Your task to perform on an android device: Open Chrome and go to settings Image 0: 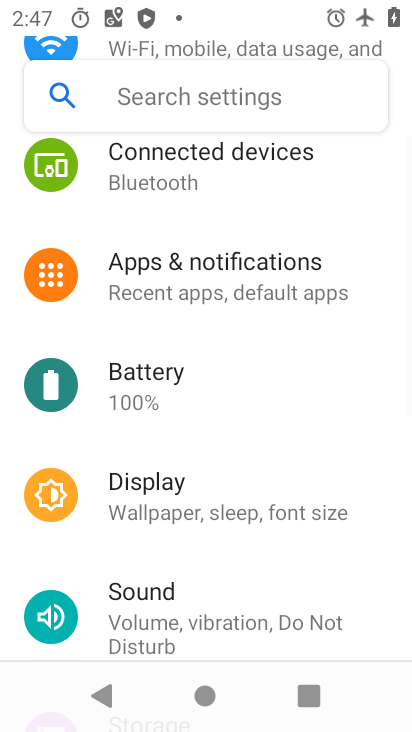
Step 0: press home button
Your task to perform on an android device: Open Chrome and go to settings Image 1: 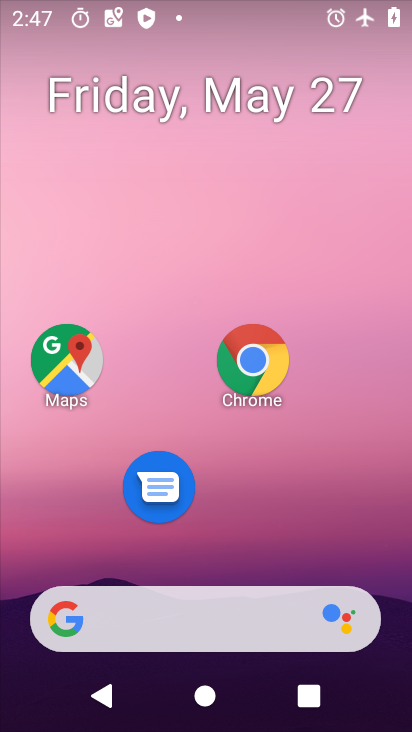
Step 1: click (254, 363)
Your task to perform on an android device: Open Chrome and go to settings Image 2: 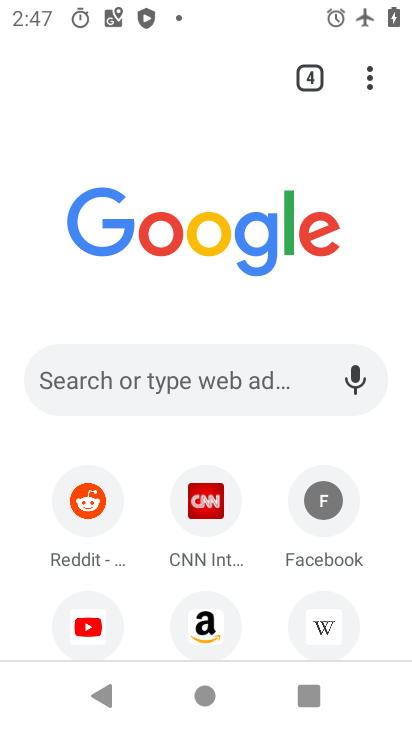
Step 2: click (360, 75)
Your task to perform on an android device: Open Chrome and go to settings Image 3: 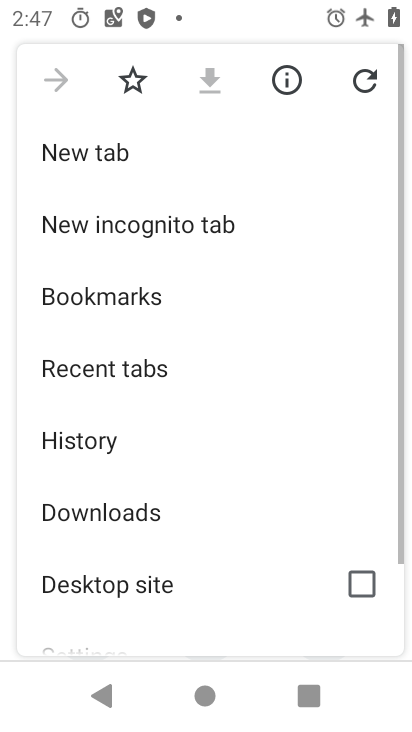
Step 3: drag from (226, 533) to (211, 205)
Your task to perform on an android device: Open Chrome and go to settings Image 4: 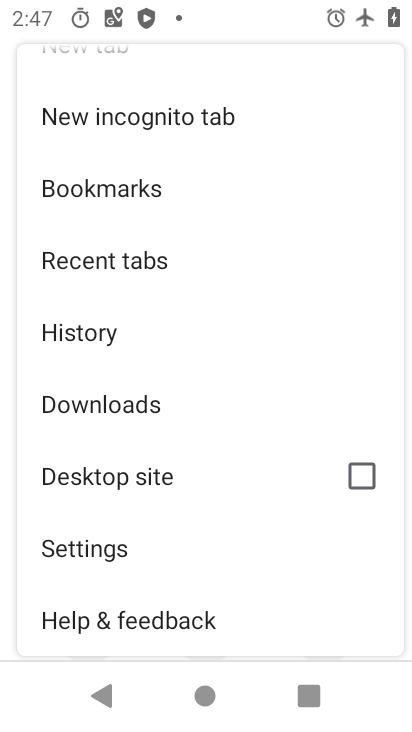
Step 4: click (118, 547)
Your task to perform on an android device: Open Chrome and go to settings Image 5: 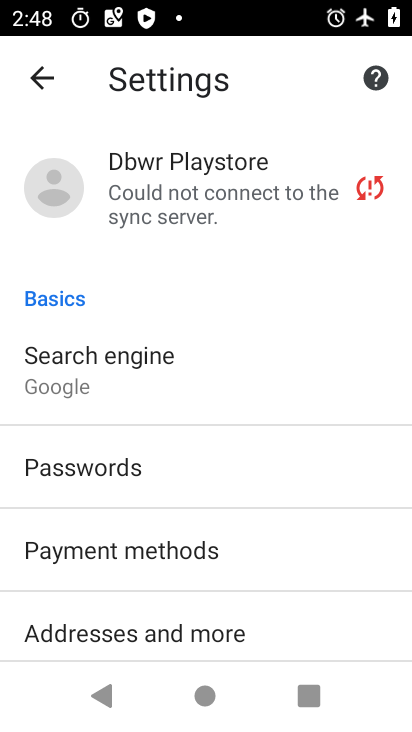
Step 5: task complete